Your task to perform on an android device: Check the price on the Dyson V11 Motorhead on Best Buy Image 0: 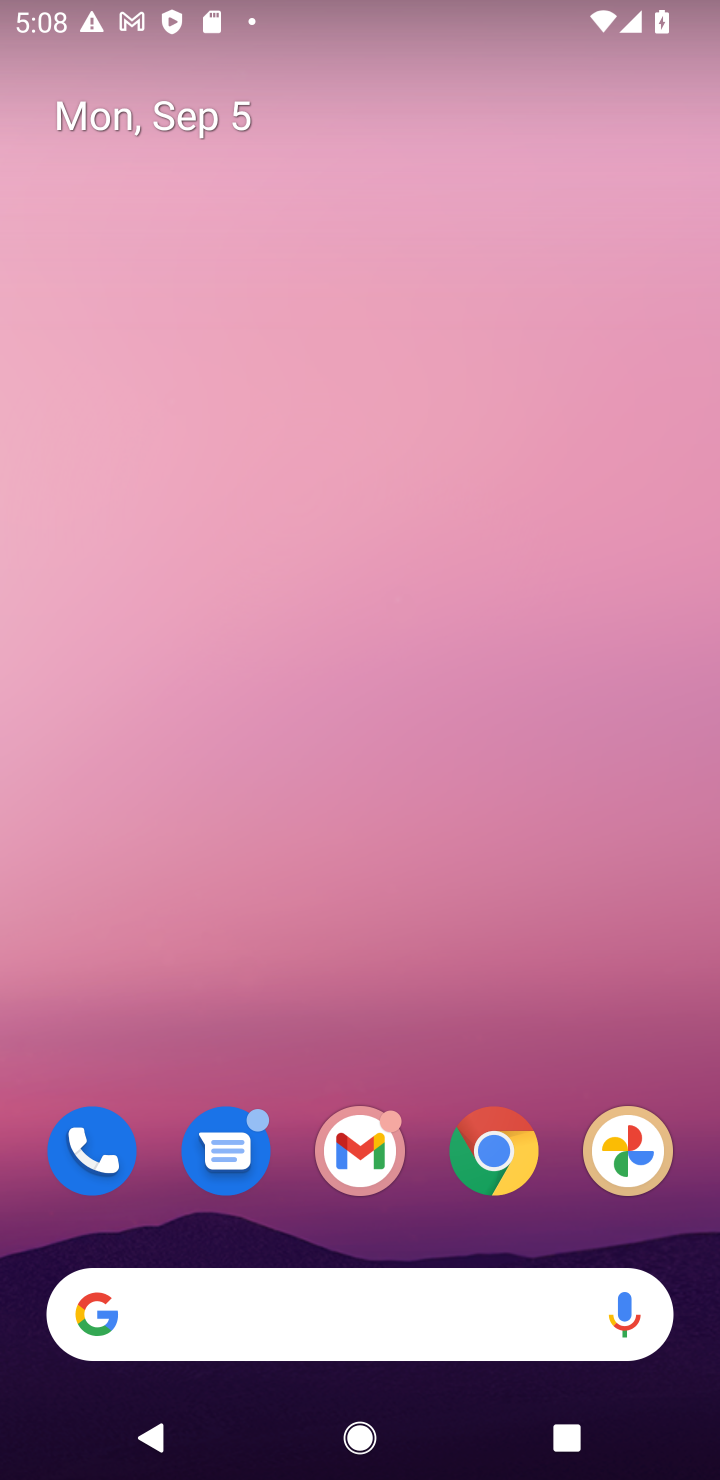
Step 0: click (505, 1173)
Your task to perform on an android device: Check the price on the Dyson V11 Motorhead on Best Buy Image 1: 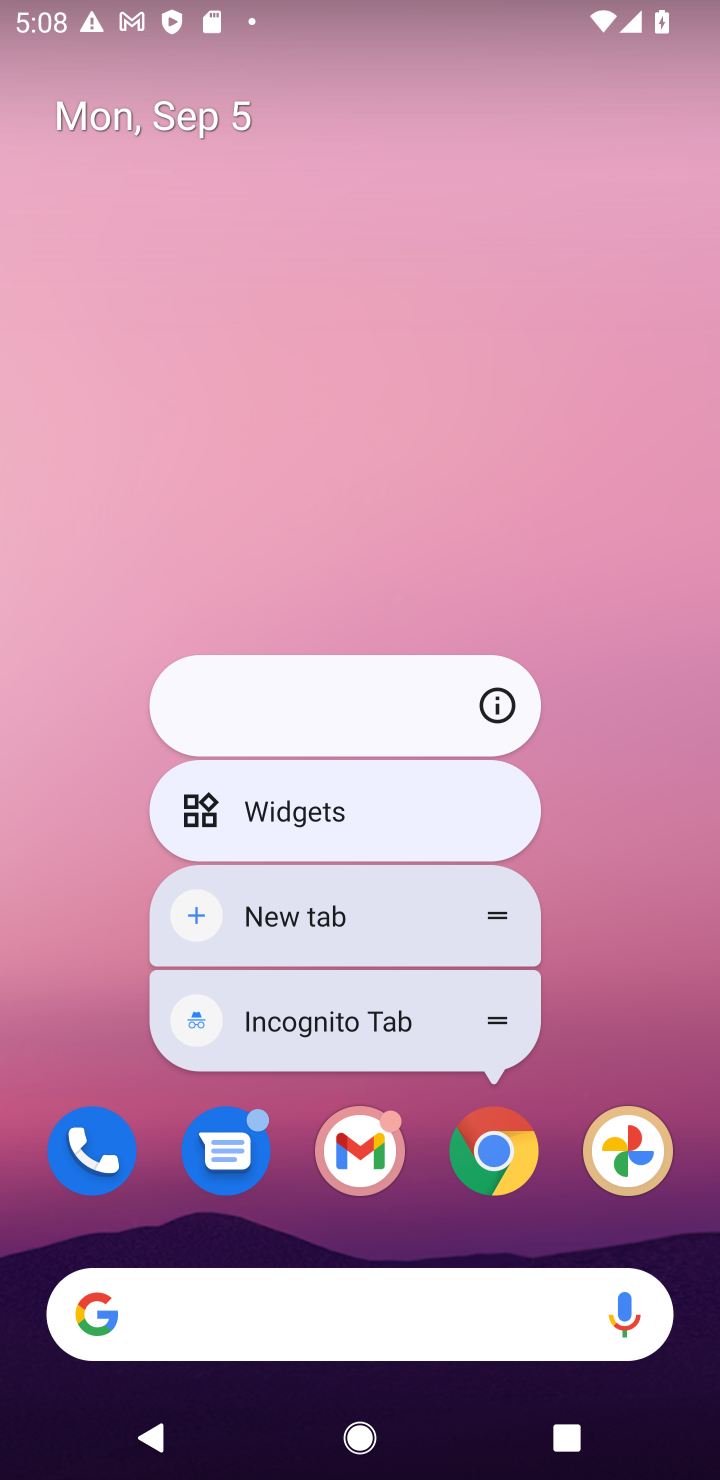
Step 1: click (505, 1171)
Your task to perform on an android device: Check the price on the Dyson V11 Motorhead on Best Buy Image 2: 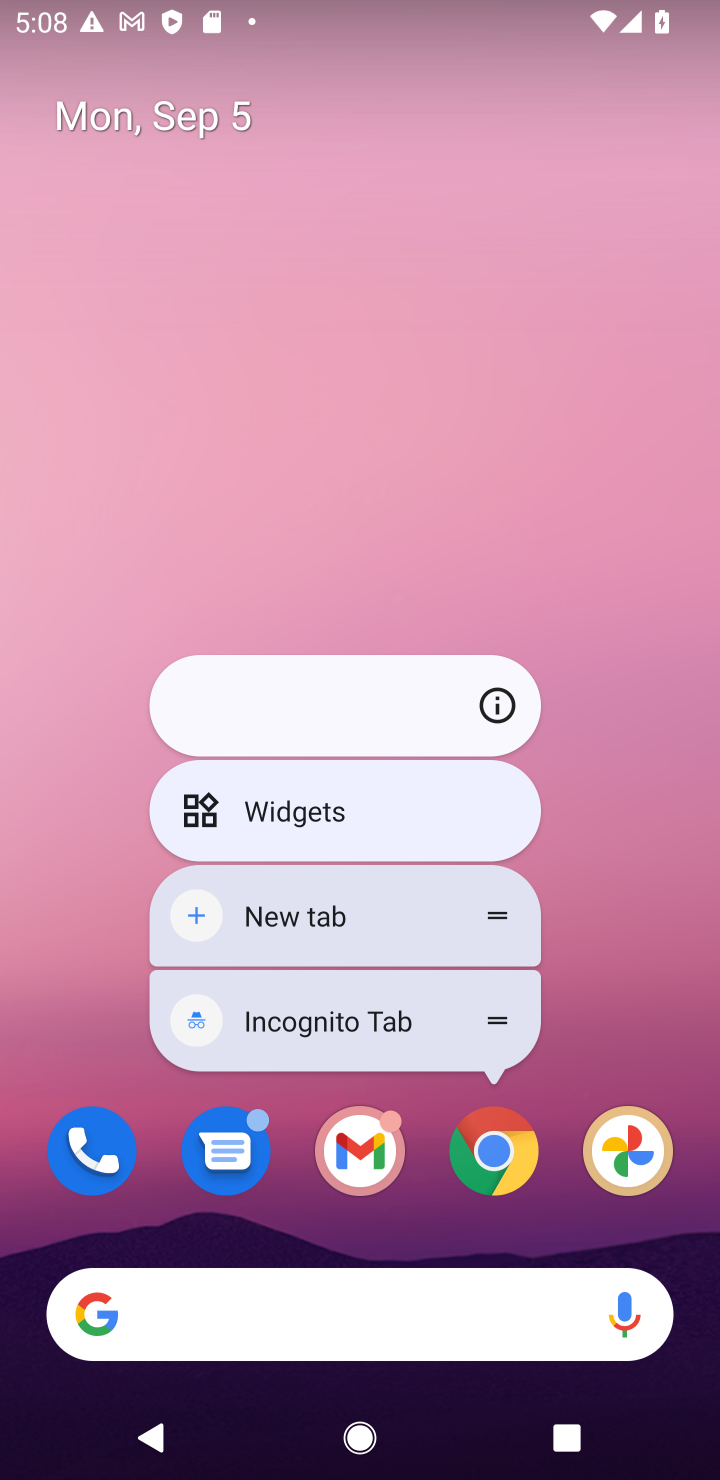
Step 2: click (502, 1166)
Your task to perform on an android device: Check the price on the Dyson V11 Motorhead on Best Buy Image 3: 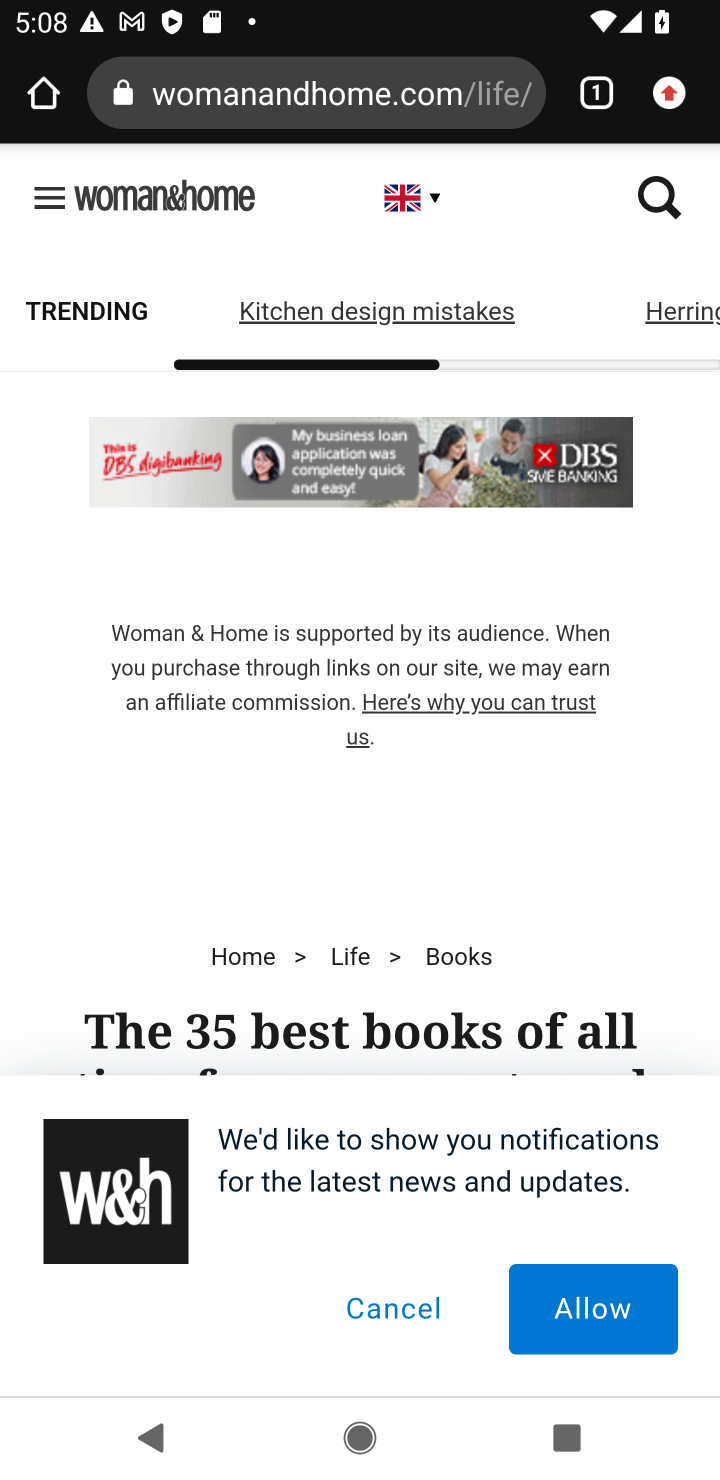
Step 3: click (294, 103)
Your task to perform on an android device: Check the price on the Dyson V11 Motorhead on Best Buy Image 4: 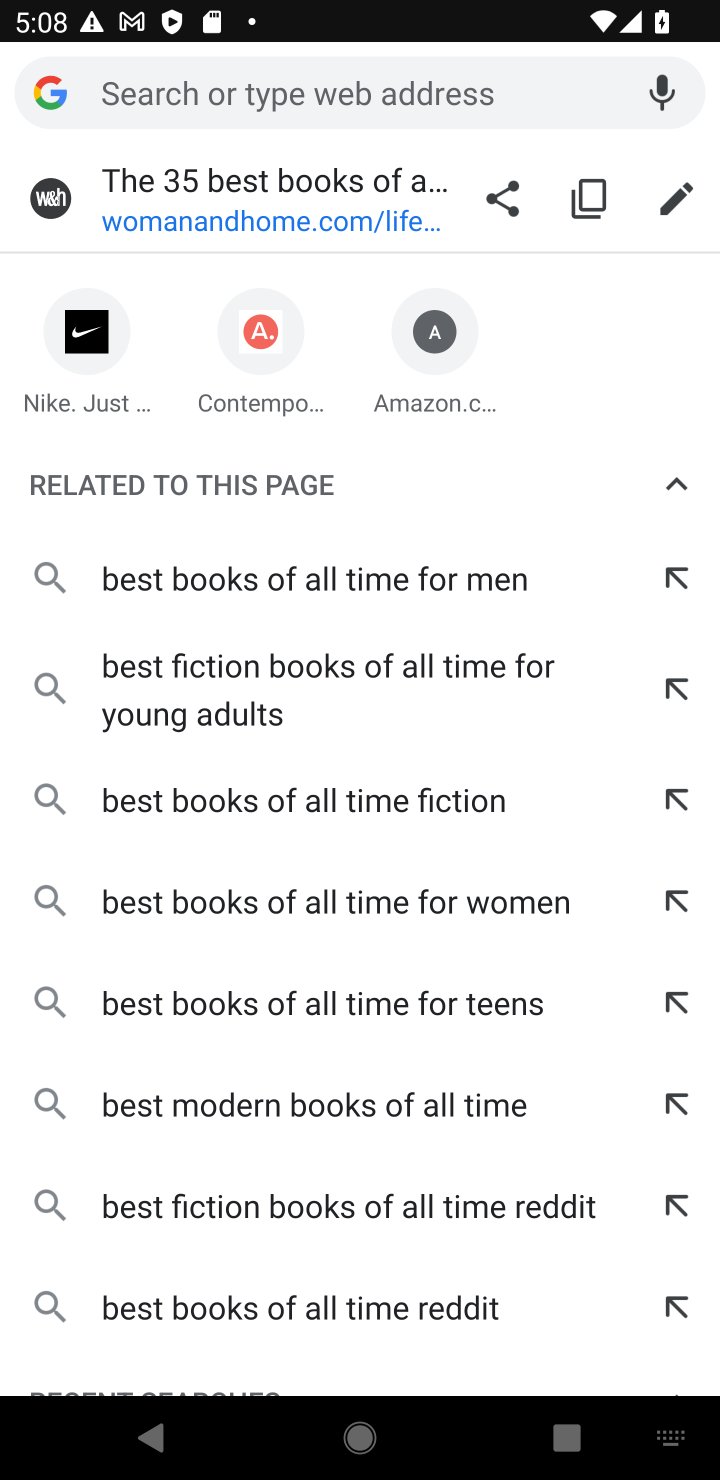
Step 4: type "best biuy"
Your task to perform on an android device: Check the price on the Dyson V11 Motorhead on Best Buy Image 5: 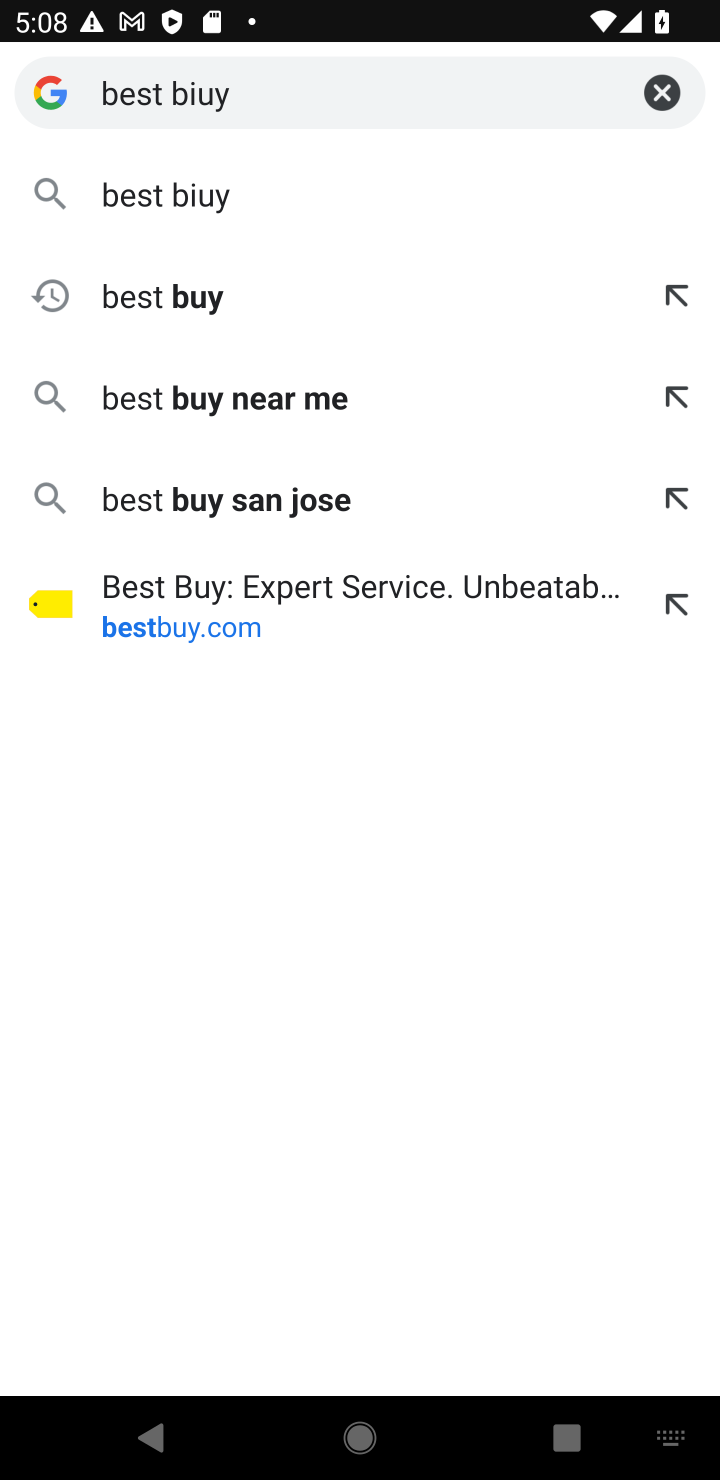
Step 5: click (495, 601)
Your task to perform on an android device: Check the price on the Dyson V11 Motorhead on Best Buy Image 6: 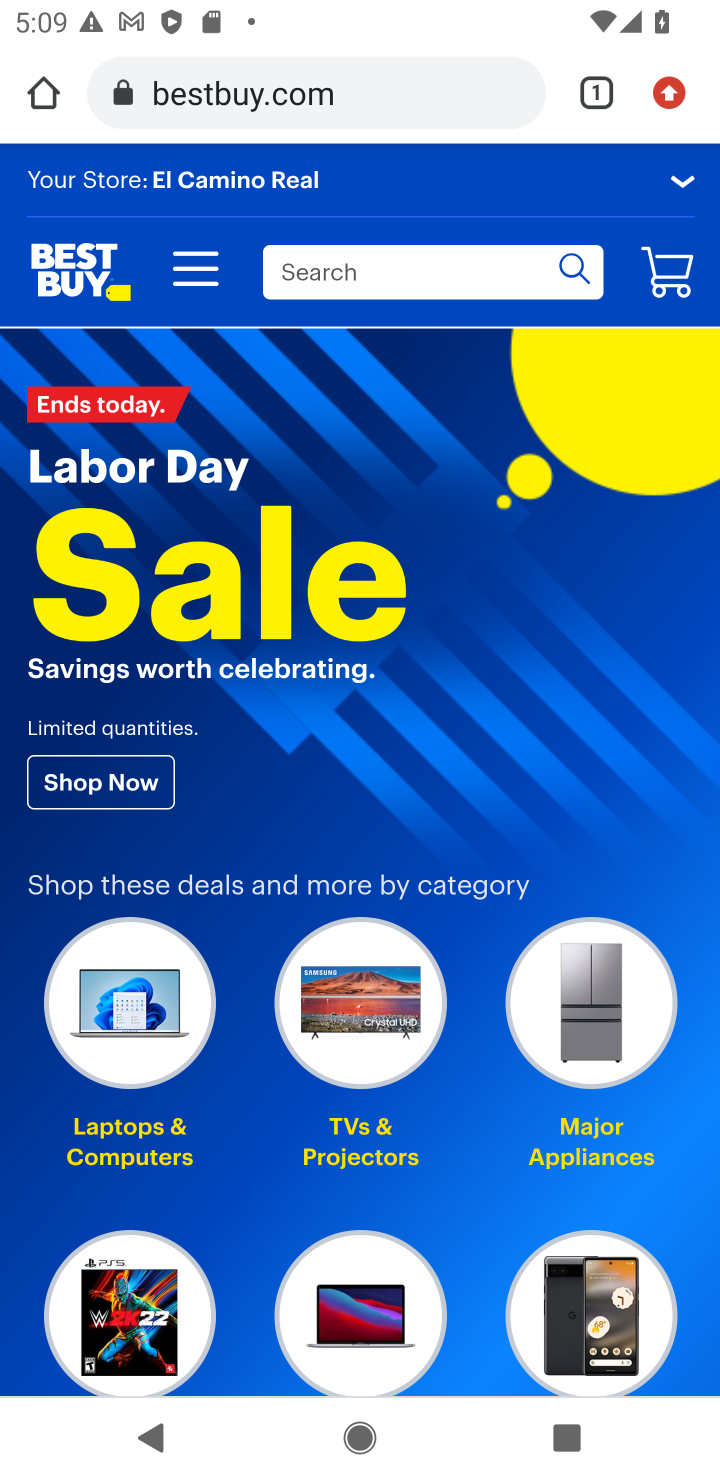
Step 6: click (477, 273)
Your task to perform on an android device: Check the price on the Dyson V11 Motorhead on Best Buy Image 7: 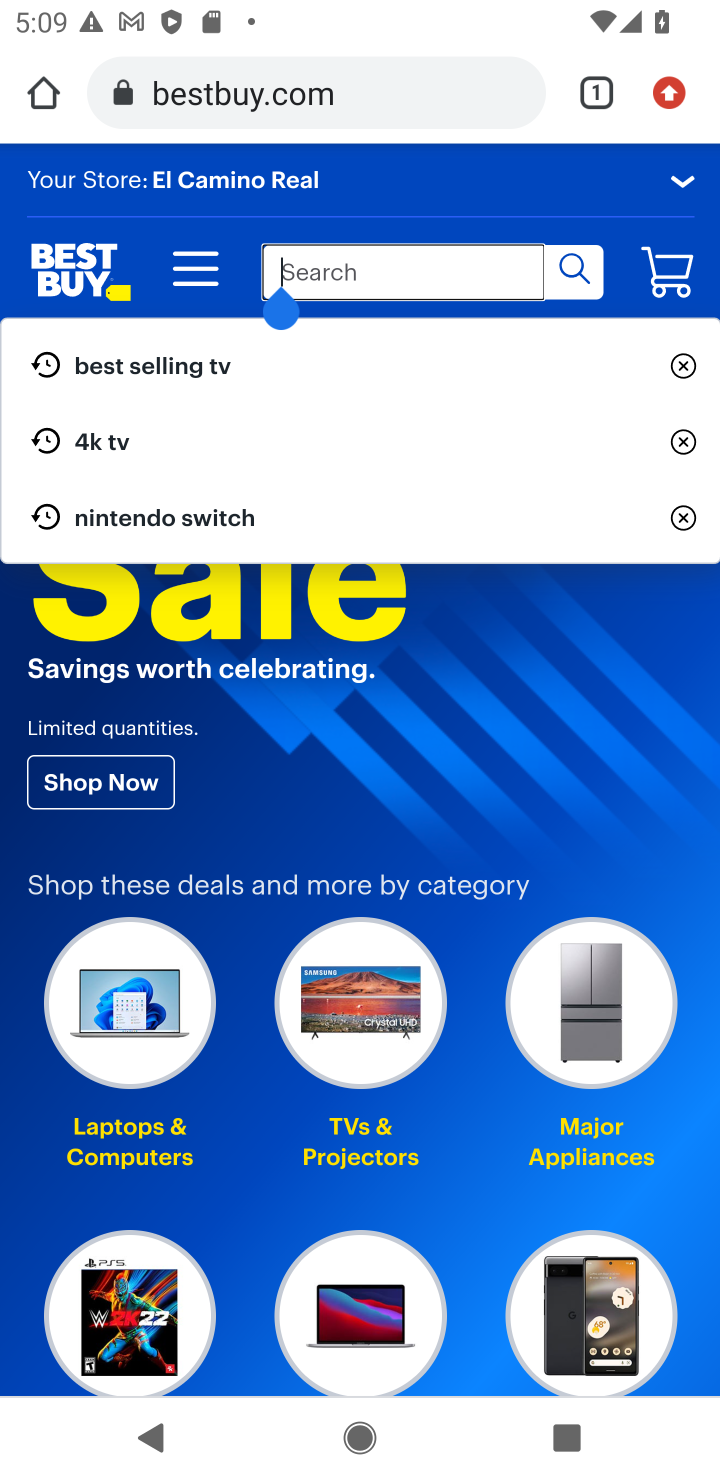
Step 7: type "Dyson V11 Motorhead"
Your task to perform on an android device: Check the price on the Dyson V11 Motorhead on Best Buy Image 8: 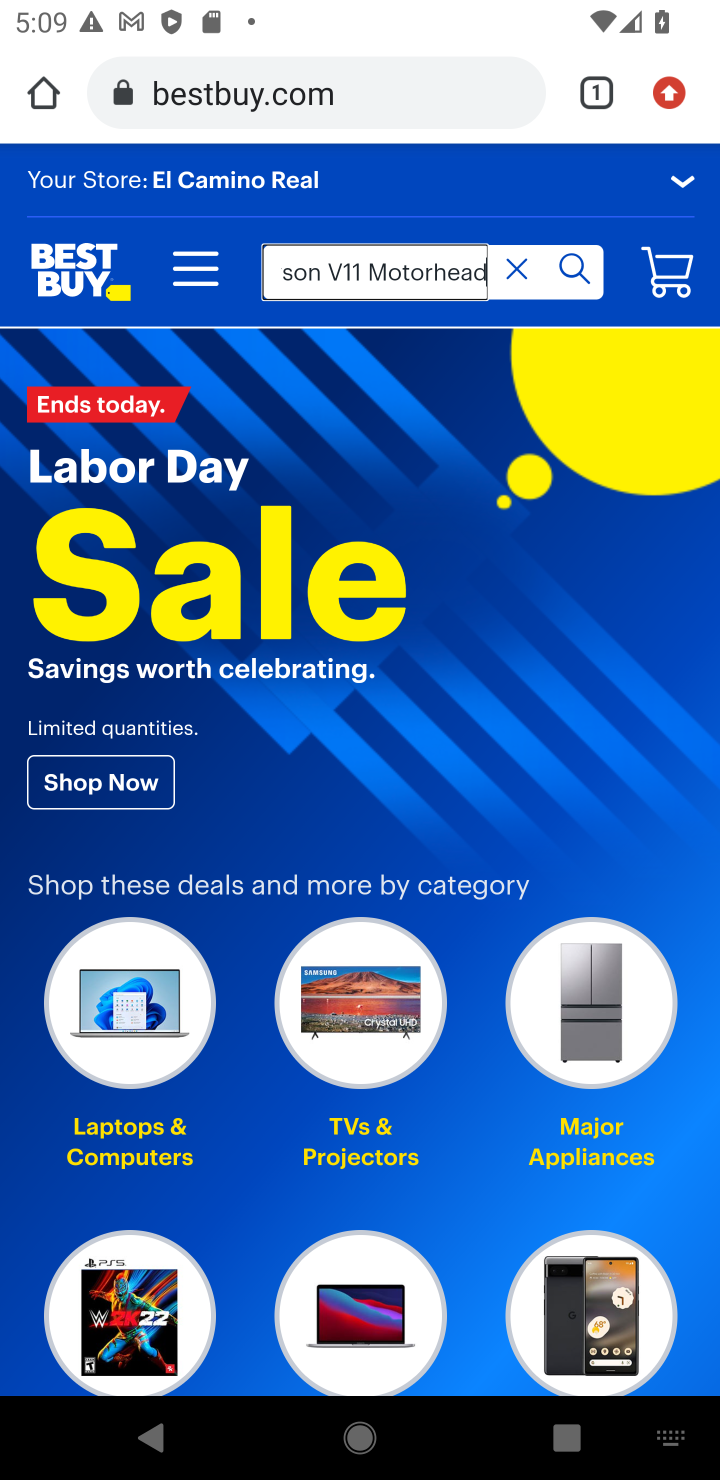
Step 8: click (570, 271)
Your task to perform on an android device: Check the price on the Dyson V11 Motorhead on Best Buy Image 9: 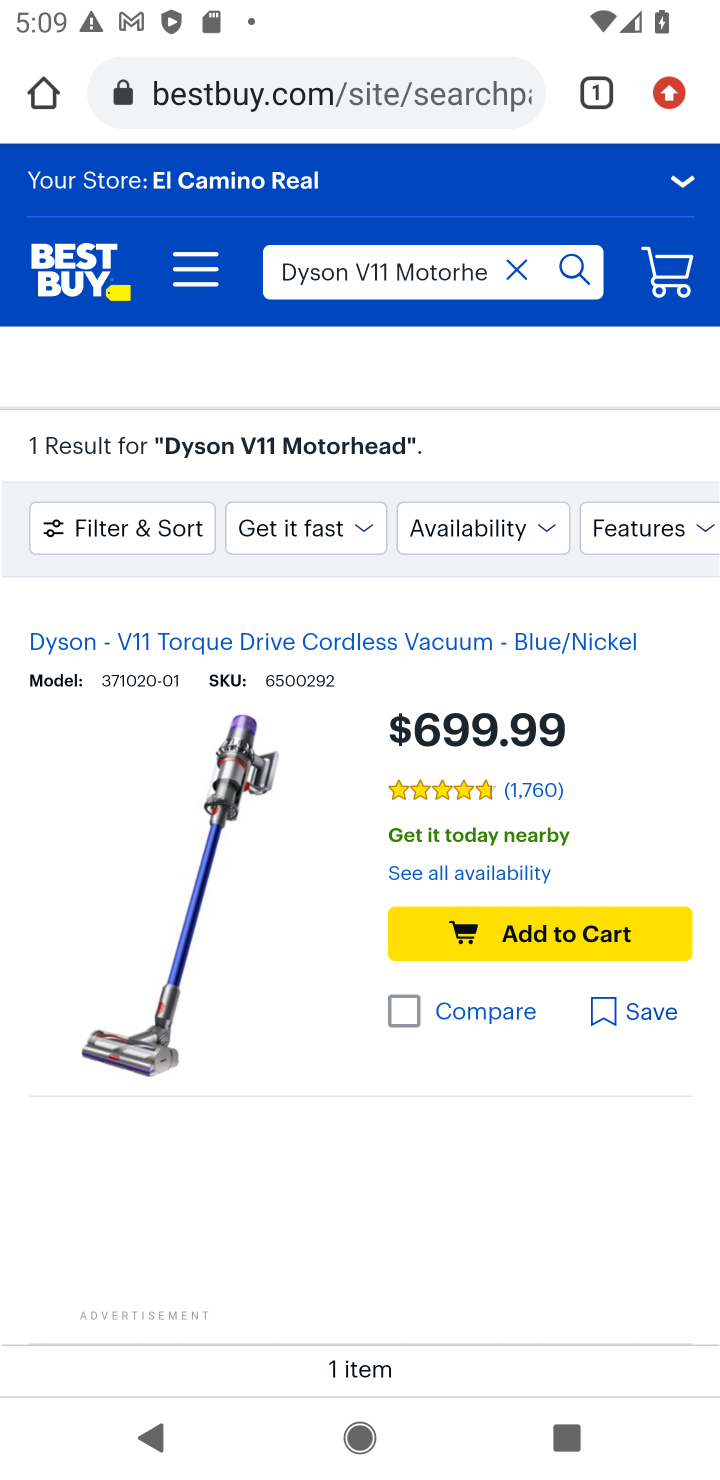
Step 9: task complete